Your task to perform on an android device: Open Wikipedia Image 0: 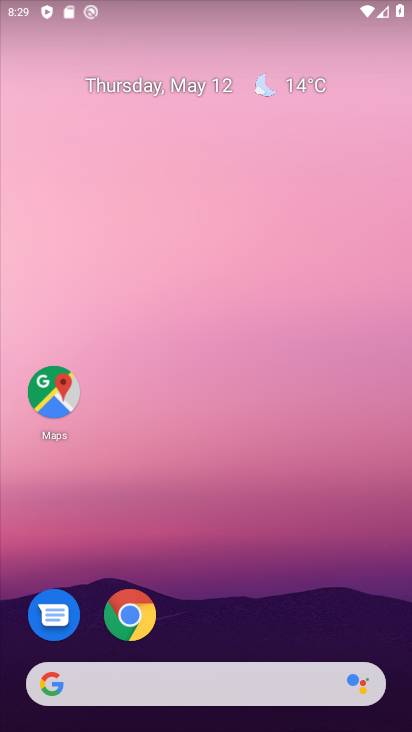
Step 0: drag from (205, 656) to (256, 10)
Your task to perform on an android device: Open Wikipedia Image 1: 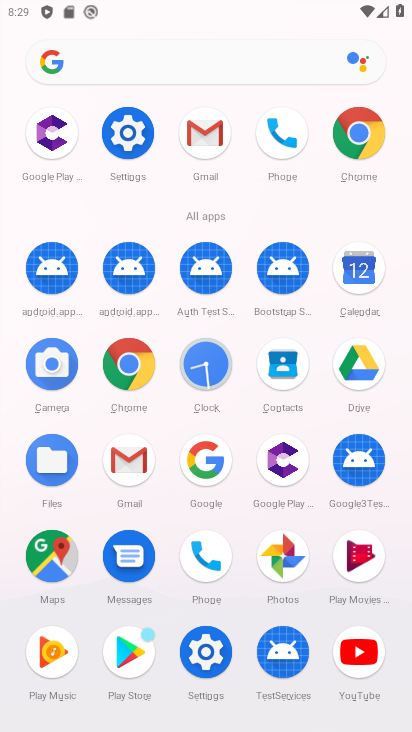
Step 1: click (369, 130)
Your task to perform on an android device: Open Wikipedia Image 2: 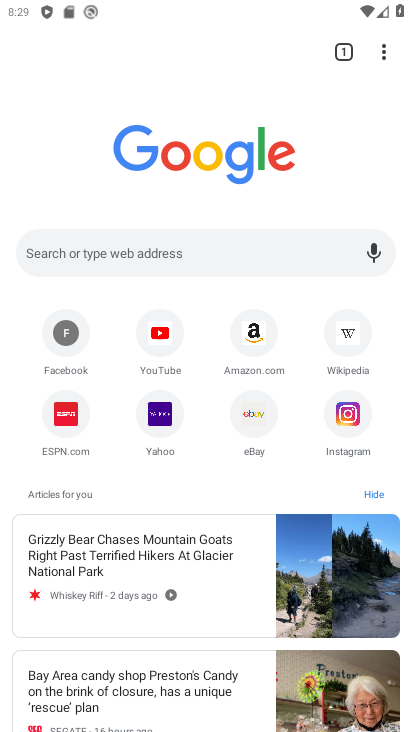
Step 2: click (375, 47)
Your task to perform on an android device: Open Wikipedia Image 3: 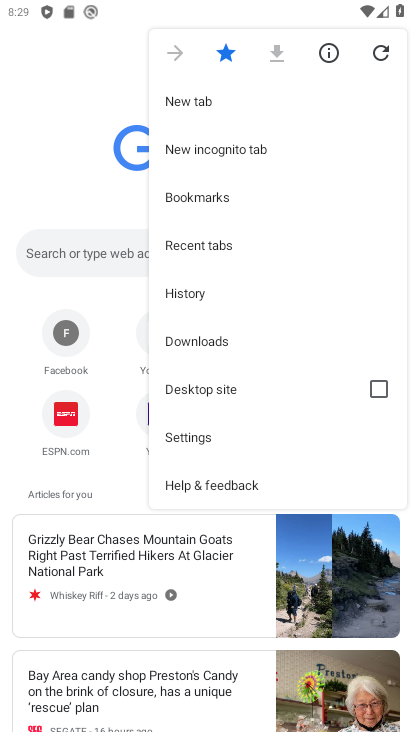
Step 3: click (90, 142)
Your task to perform on an android device: Open Wikipedia Image 4: 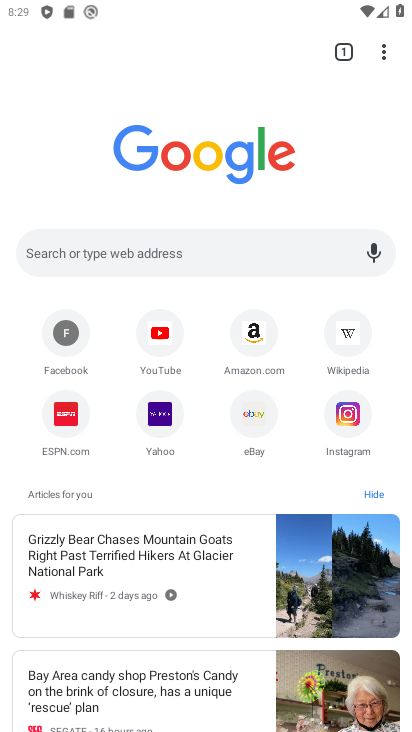
Step 4: click (341, 343)
Your task to perform on an android device: Open Wikipedia Image 5: 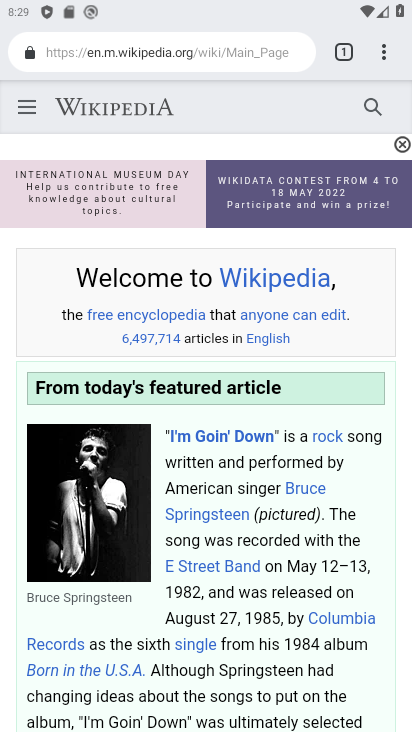
Step 5: task complete